Your task to perform on an android device: delete browsing data in the chrome app Image 0: 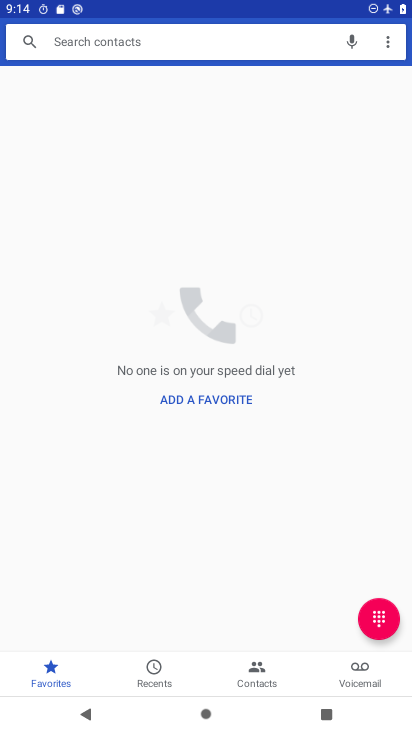
Step 0: press home button
Your task to perform on an android device: delete browsing data in the chrome app Image 1: 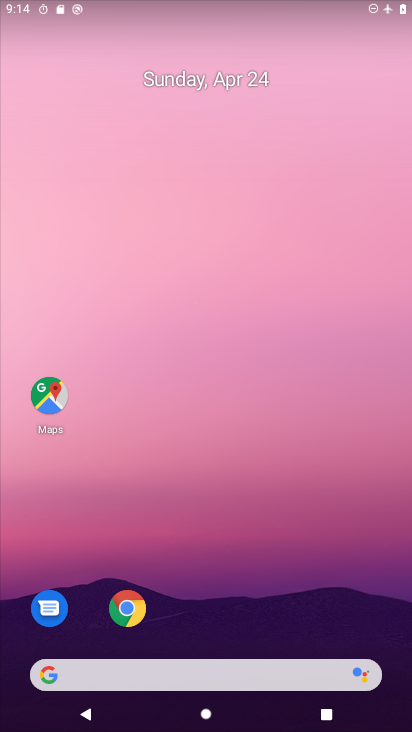
Step 1: click (124, 605)
Your task to perform on an android device: delete browsing data in the chrome app Image 2: 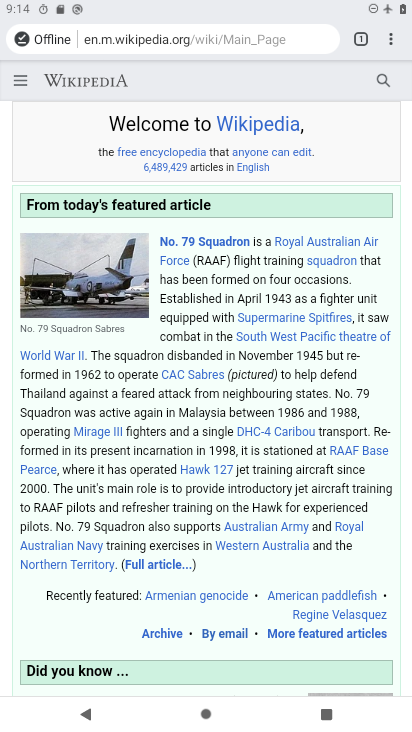
Step 2: click (392, 34)
Your task to perform on an android device: delete browsing data in the chrome app Image 3: 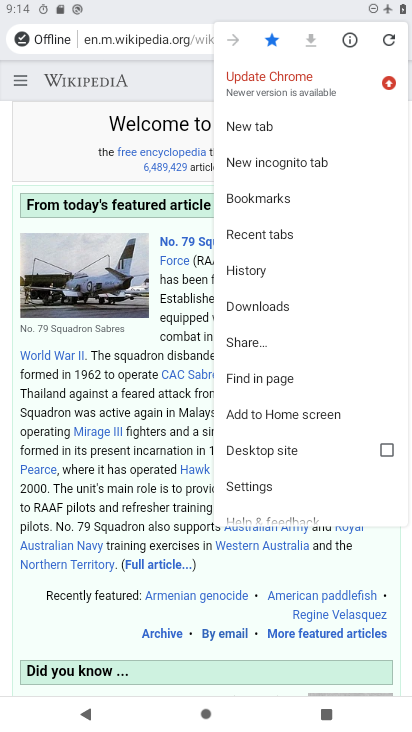
Step 3: click (271, 269)
Your task to perform on an android device: delete browsing data in the chrome app Image 4: 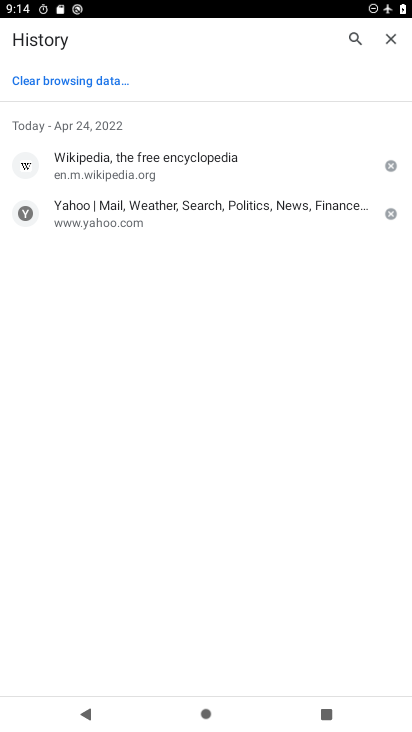
Step 4: click (99, 75)
Your task to perform on an android device: delete browsing data in the chrome app Image 5: 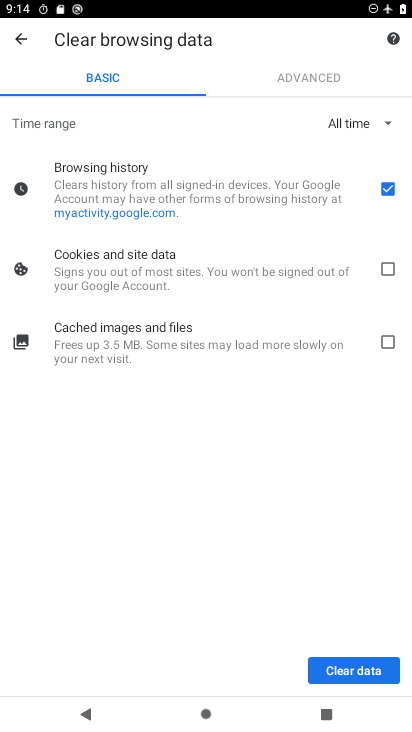
Step 5: click (364, 670)
Your task to perform on an android device: delete browsing data in the chrome app Image 6: 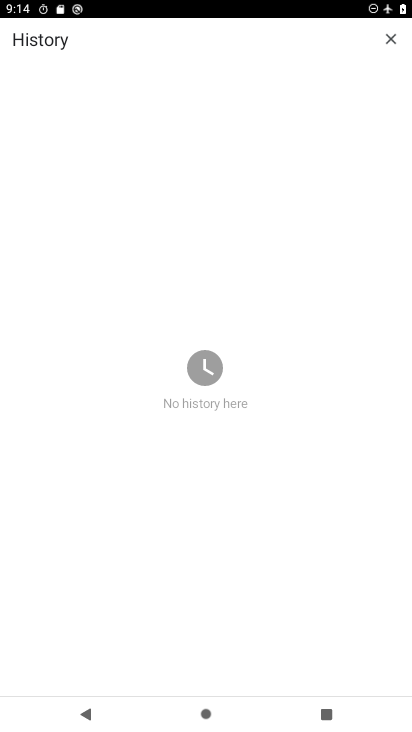
Step 6: task complete